Your task to perform on an android device: What's a good restaurant in Dallas? Image 0: 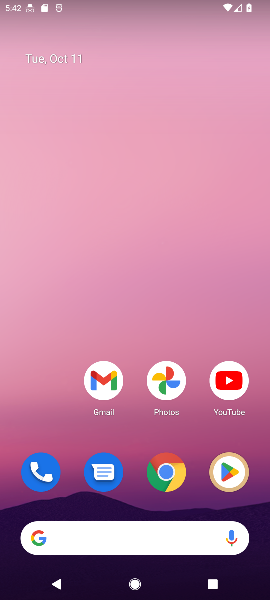
Step 0: click (160, 466)
Your task to perform on an android device: What's a good restaurant in Dallas? Image 1: 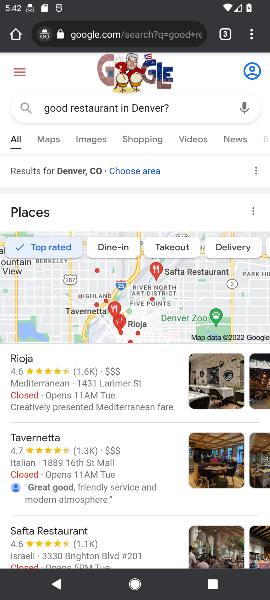
Step 1: click (97, 29)
Your task to perform on an android device: What's a good restaurant in Dallas? Image 2: 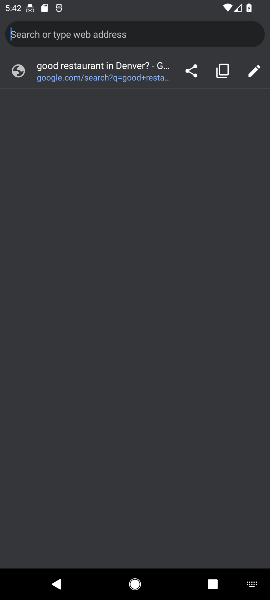
Step 2: type "What's a good restaurant in Dallas?"
Your task to perform on an android device: What's a good restaurant in Dallas? Image 3: 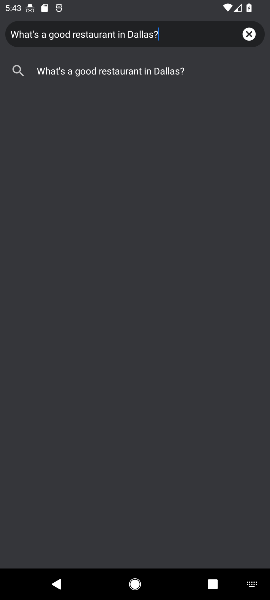
Step 3: click (128, 70)
Your task to perform on an android device: What's a good restaurant in Dallas? Image 4: 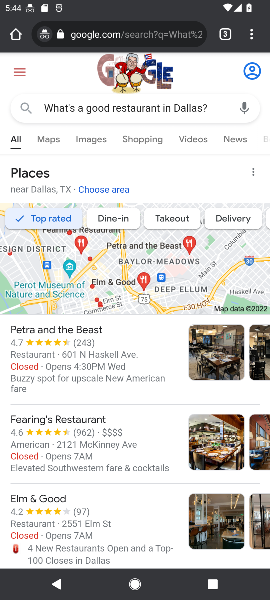
Step 4: task complete